Your task to perform on an android device: change text size in settings app Image 0: 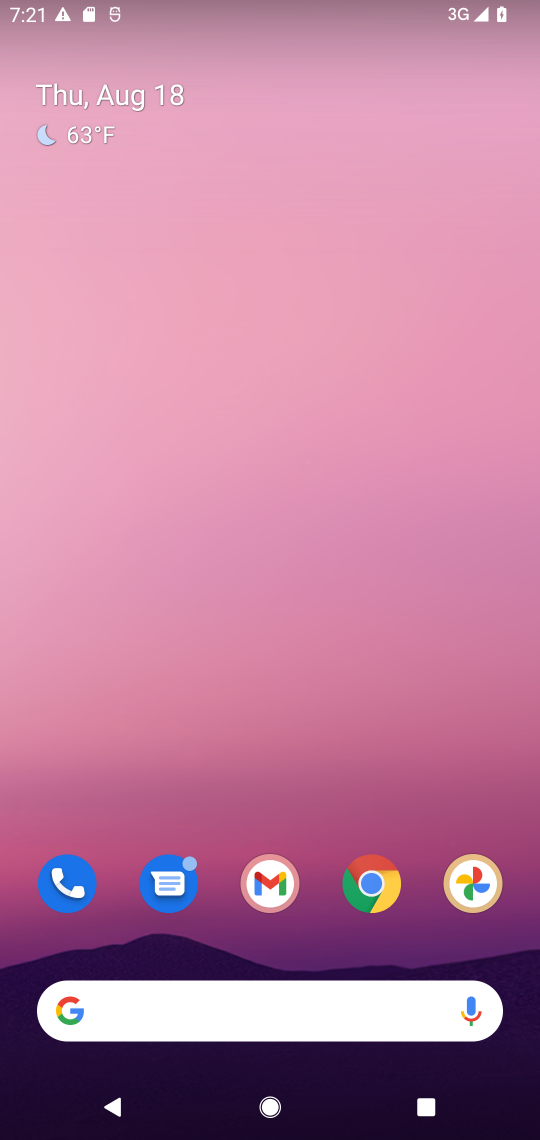
Step 0: drag from (42, 1069) to (198, 275)
Your task to perform on an android device: change text size in settings app Image 1: 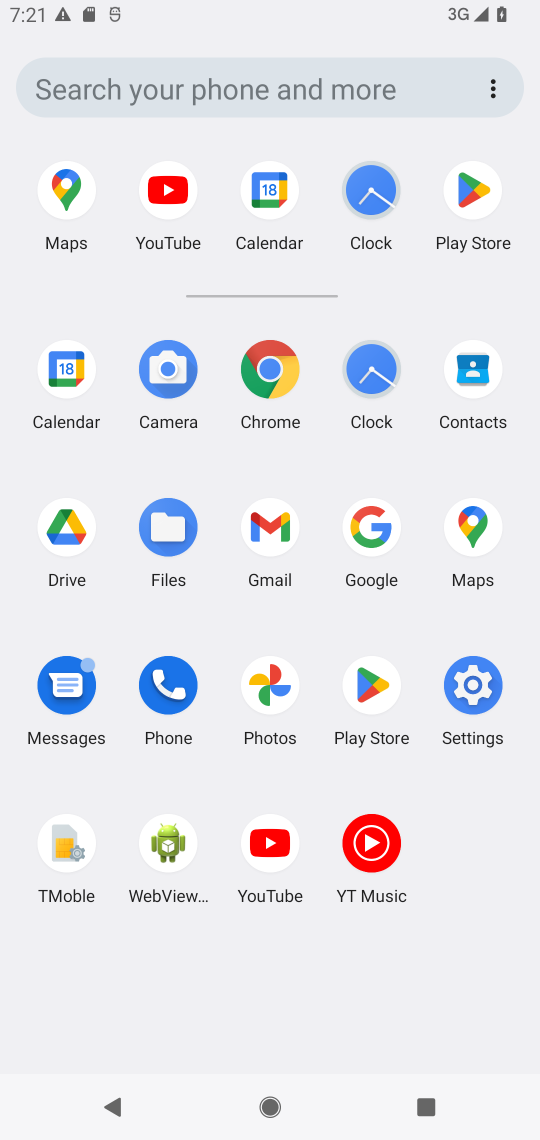
Step 1: click (489, 695)
Your task to perform on an android device: change text size in settings app Image 2: 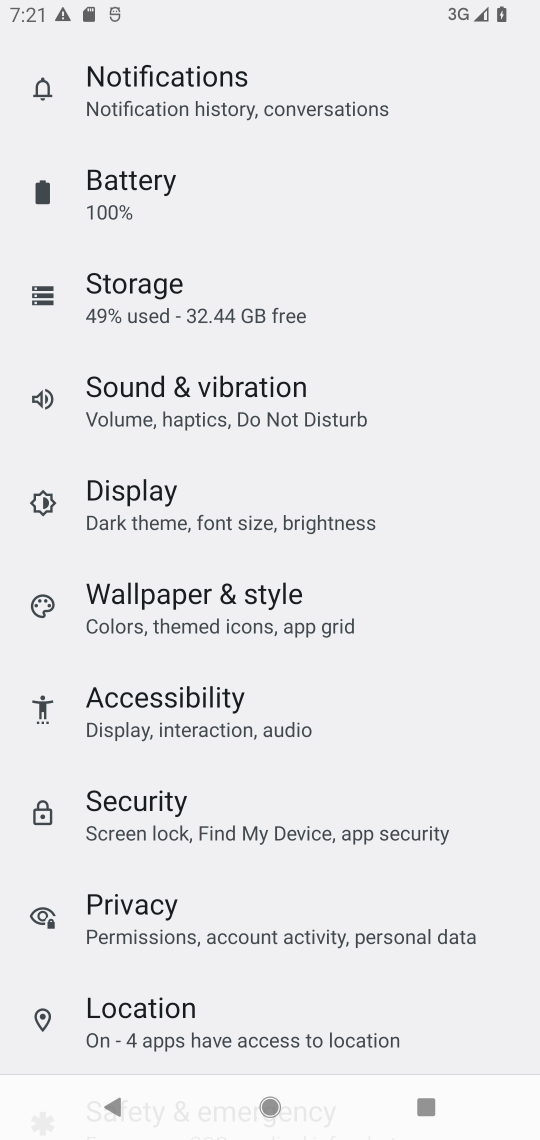
Step 2: click (213, 505)
Your task to perform on an android device: change text size in settings app Image 3: 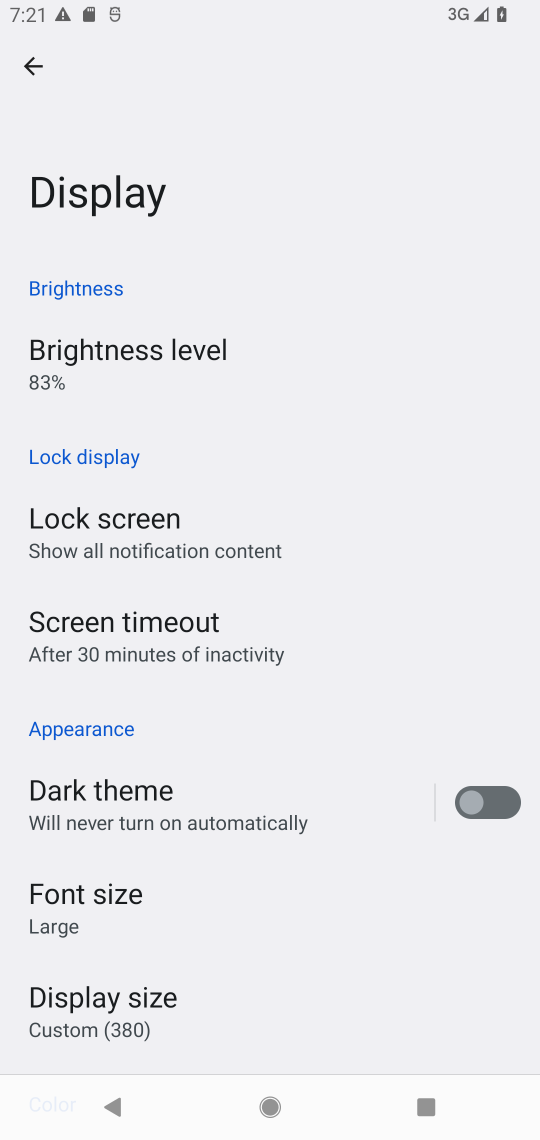
Step 3: click (65, 879)
Your task to perform on an android device: change text size in settings app Image 4: 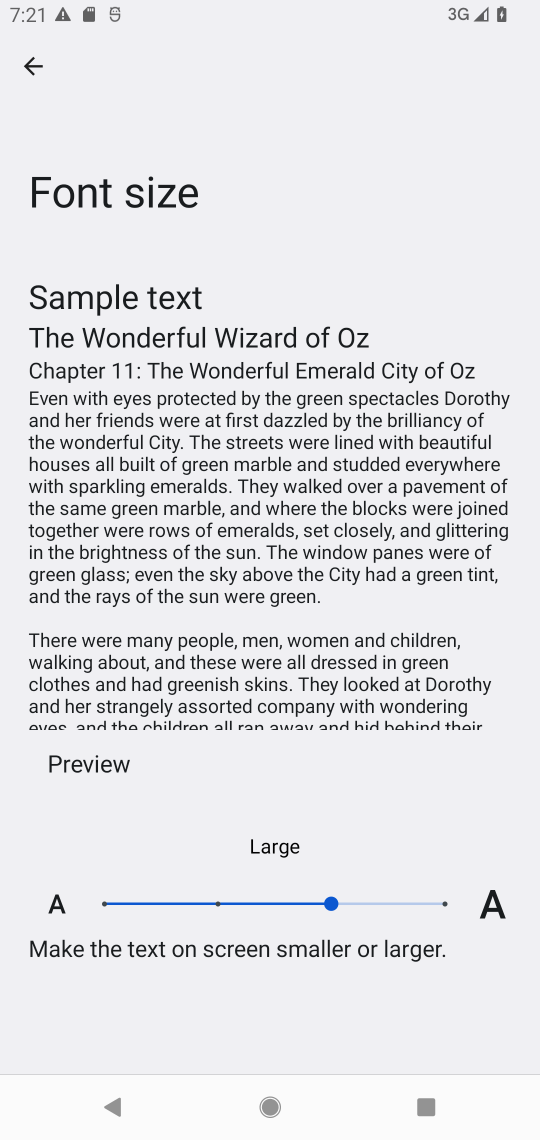
Step 4: click (315, 902)
Your task to perform on an android device: change text size in settings app Image 5: 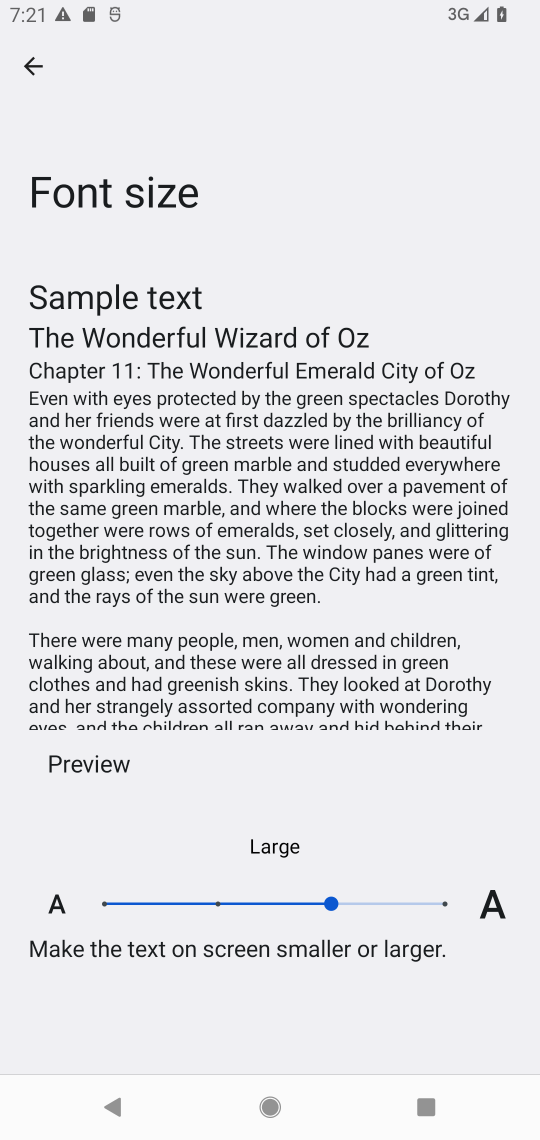
Step 5: click (343, 896)
Your task to perform on an android device: change text size in settings app Image 6: 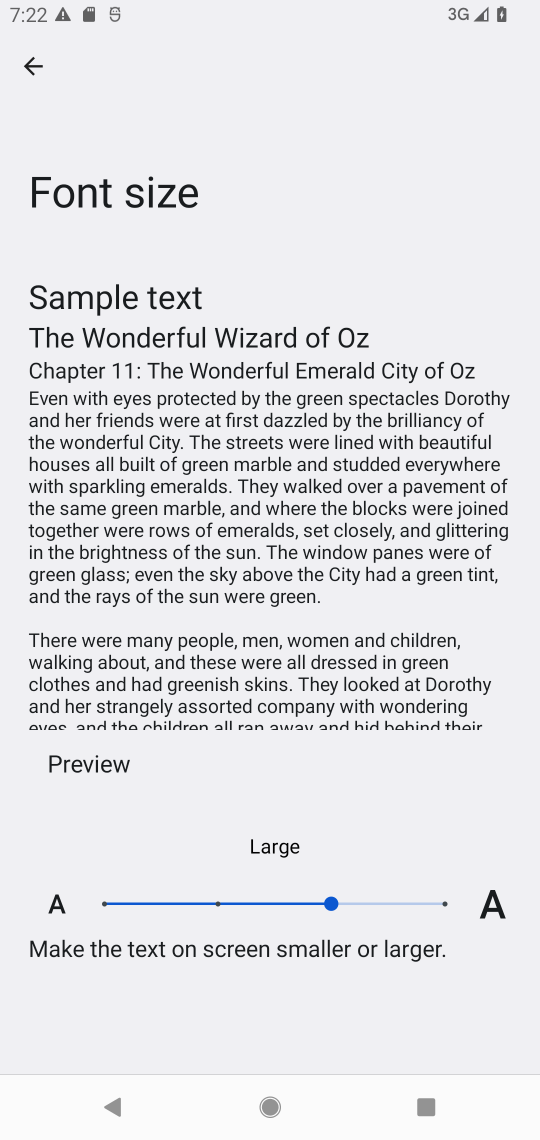
Step 6: task complete